Your task to perform on an android device: find photos in the google photos app Image 0: 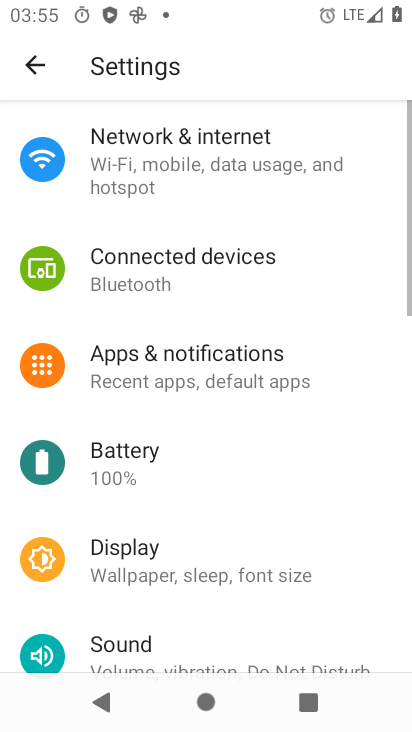
Step 0: click (230, 160)
Your task to perform on an android device: find photos in the google photos app Image 1: 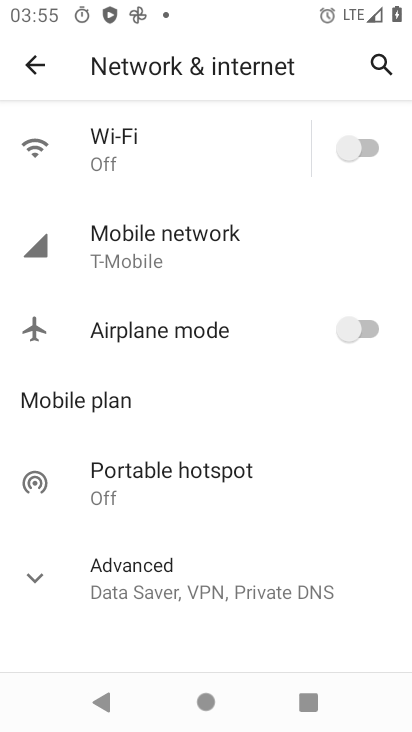
Step 1: press home button
Your task to perform on an android device: find photos in the google photos app Image 2: 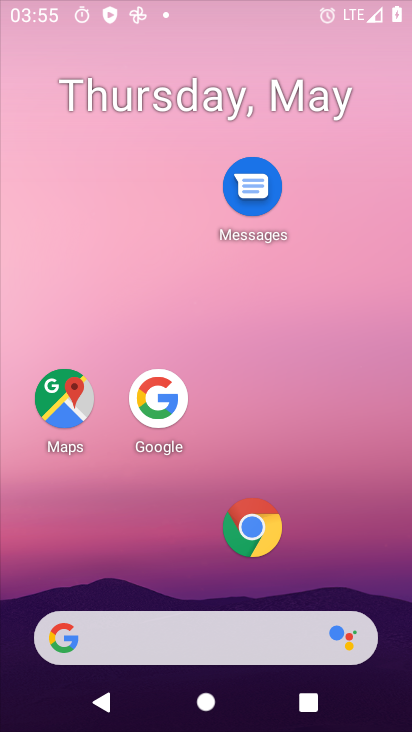
Step 2: drag from (192, 618) to (271, 111)
Your task to perform on an android device: find photos in the google photos app Image 3: 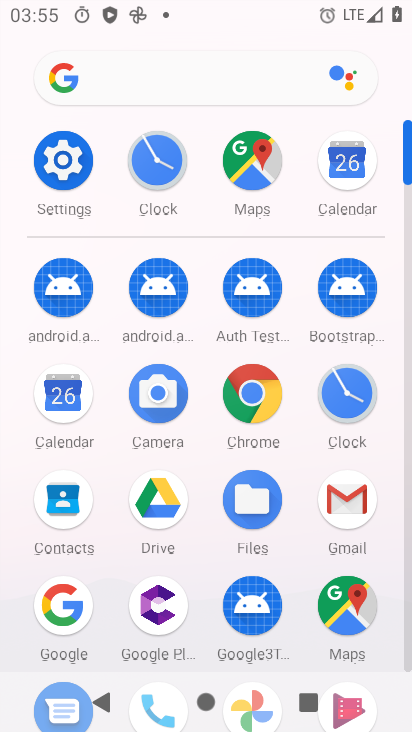
Step 3: drag from (204, 559) to (234, 185)
Your task to perform on an android device: find photos in the google photos app Image 4: 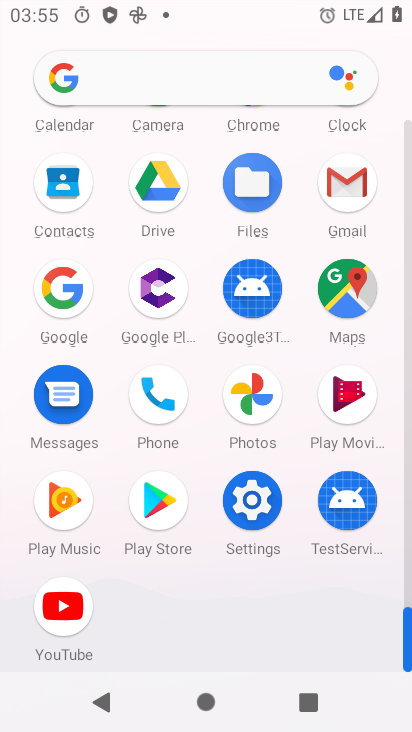
Step 4: click (245, 386)
Your task to perform on an android device: find photos in the google photos app Image 5: 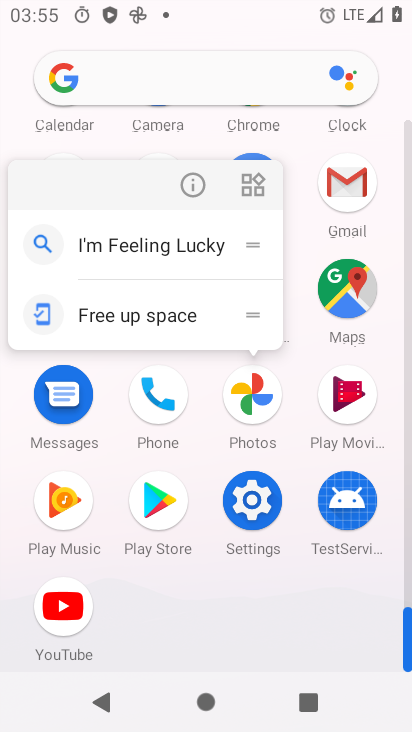
Step 5: click (190, 183)
Your task to perform on an android device: find photos in the google photos app Image 6: 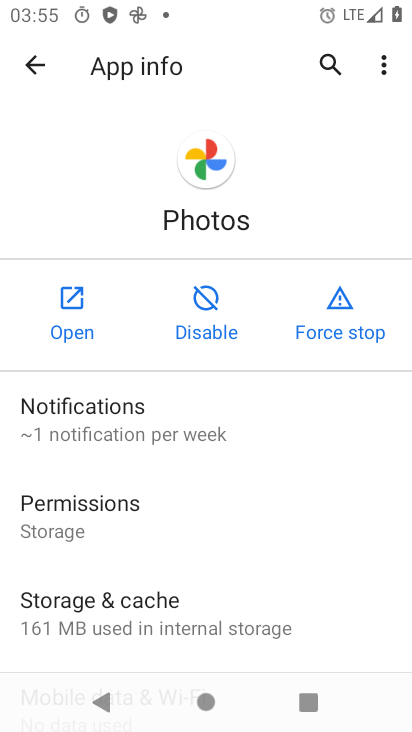
Step 6: click (78, 314)
Your task to perform on an android device: find photos in the google photos app Image 7: 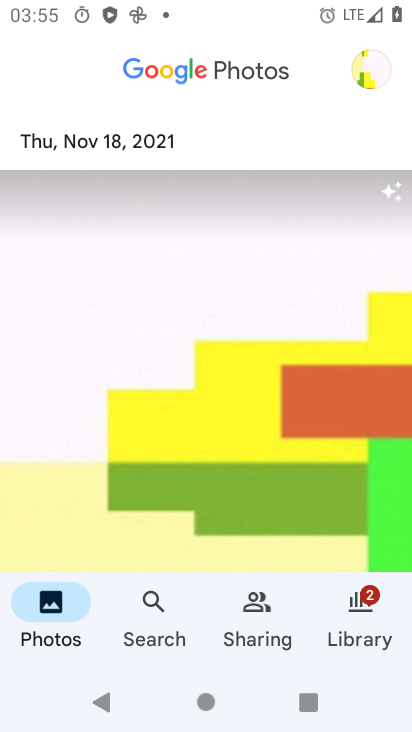
Step 7: click (210, 396)
Your task to perform on an android device: find photos in the google photos app Image 8: 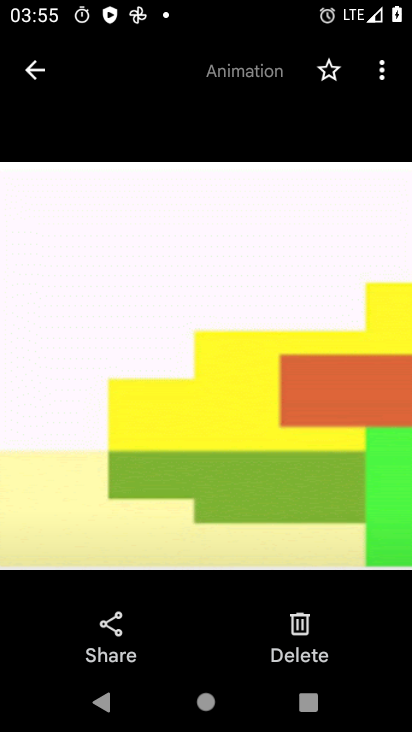
Step 8: drag from (359, 424) to (16, 532)
Your task to perform on an android device: find photos in the google photos app Image 9: 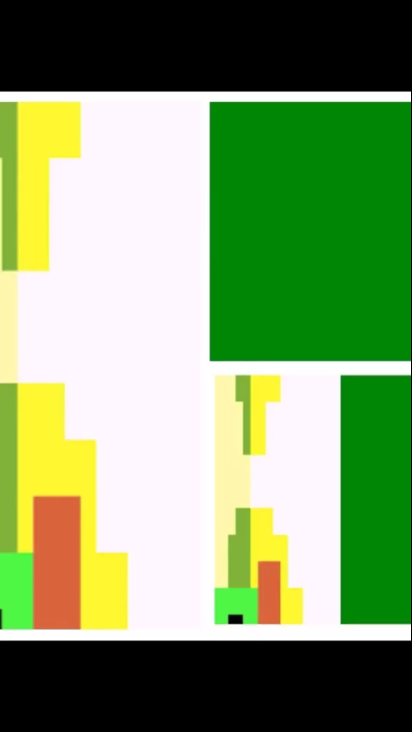
Step 9: drag from (353, 409) to (13, 337)
Your task to perform on an android device: find photos in the google photos app Image 10: 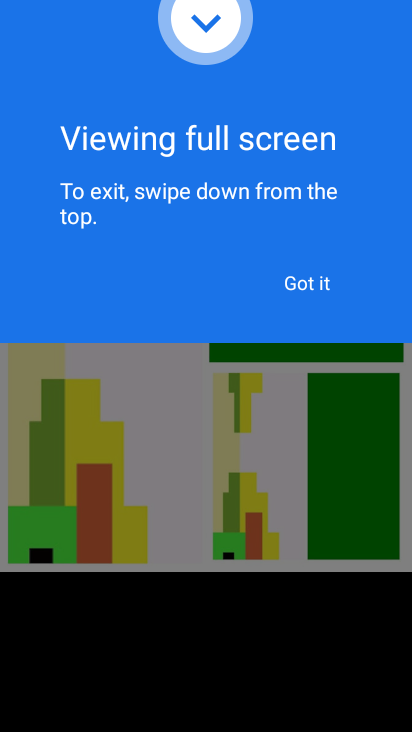
Step 10: click (332, 283)
Your task to perform on an android device: find photos in the google photos app Image 11: 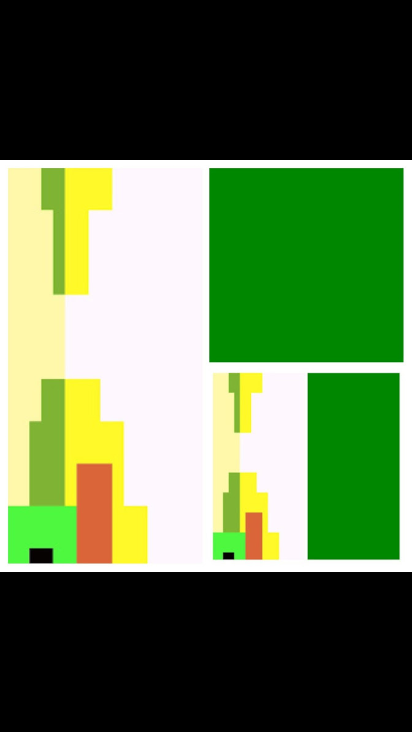
Step 11: task complete